Your task to perform on an android device: turn on priority inbox in the gmail app Image 0: 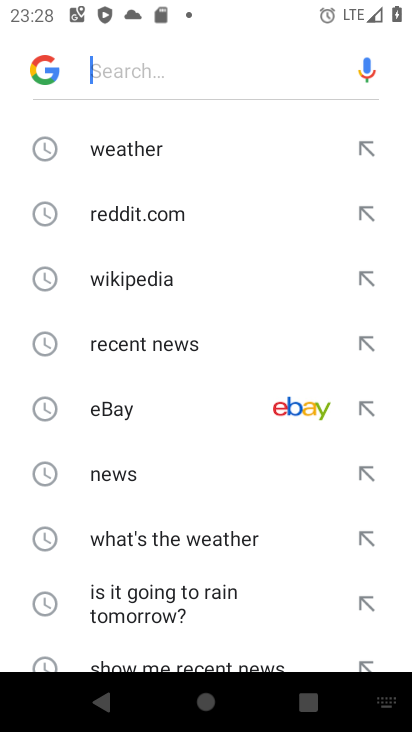
Step 0: press home button
Your task to perform on an android device: turn on priority inbox in the gmail app Image 1: 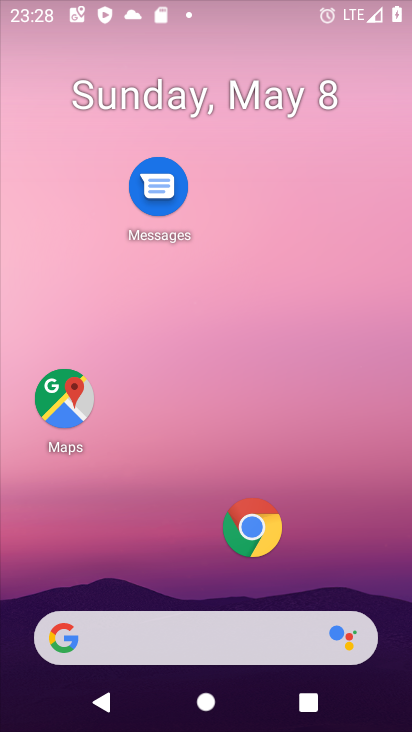
Step 1: drag from (201, 560) to (205, 47)
Your task to perform on an android device: turn on priority inbox in the gmail app Image 2: 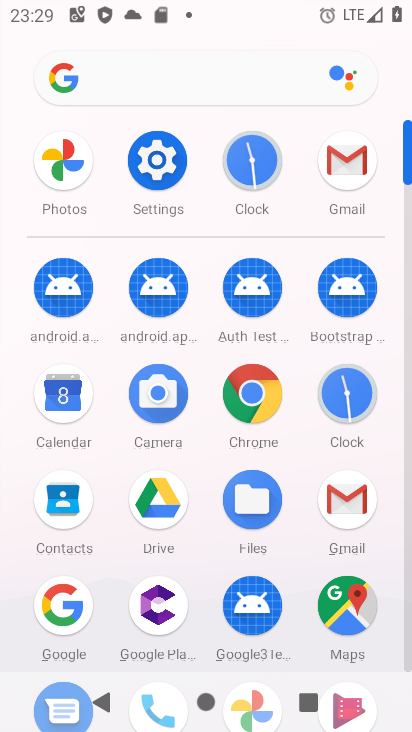
Step 2: click (355, 166)
Your task to perform on an android device: turn on priority inbox in the gmail app Image 3: 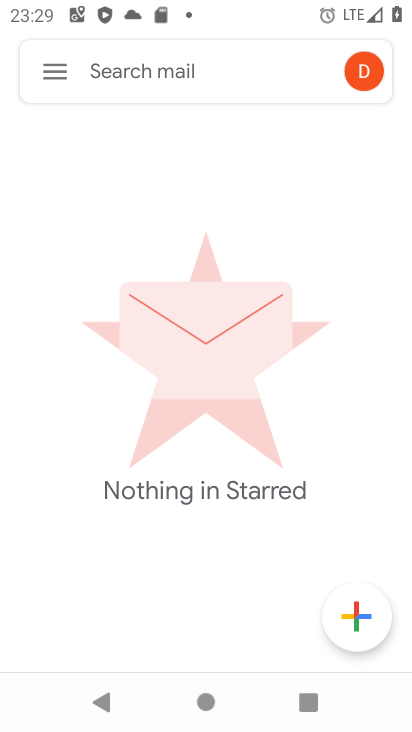
Step 3: click (49, 79)
Your task to perform on an android device: turn on priority inbox in the gmail app Image 4: 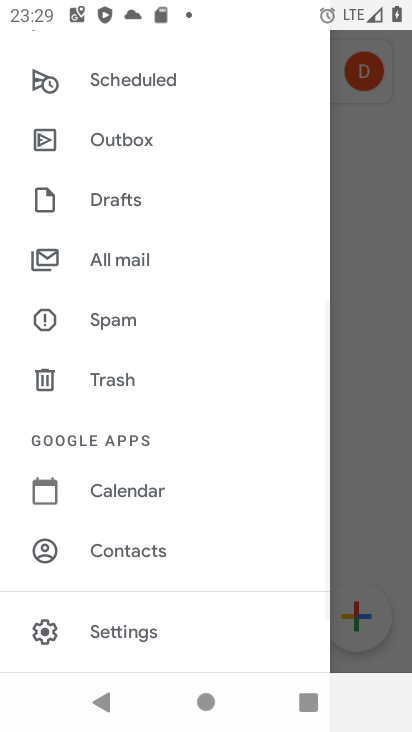
Step 4: click (110, 625)
Your task to perform on an android device: turn on priority inbox in the gmail app Image 5: 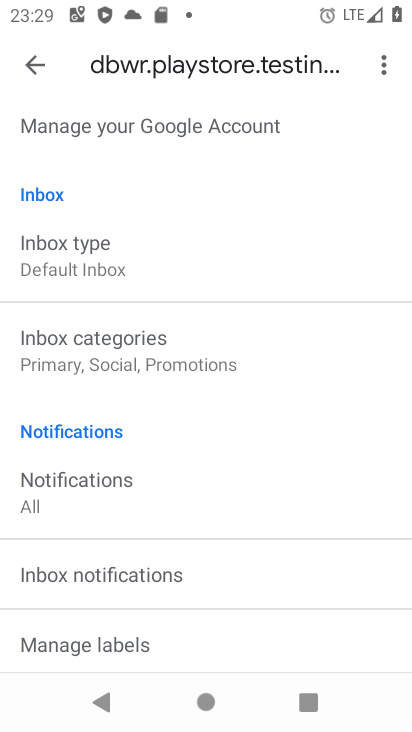
Step 5: click (99, 254)
Your task to perform on an android device: turn on priority inbox in the gmail app Image 6: 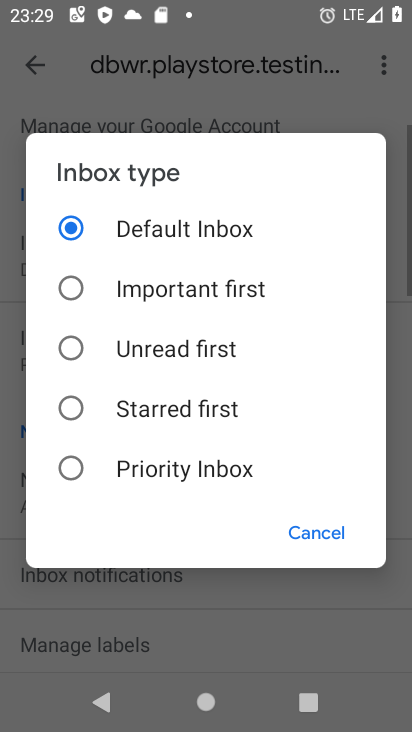
Step 6: click (74, 472)
Your task to perform on an android device: turn on priority inbox in the gmail app Image 7: 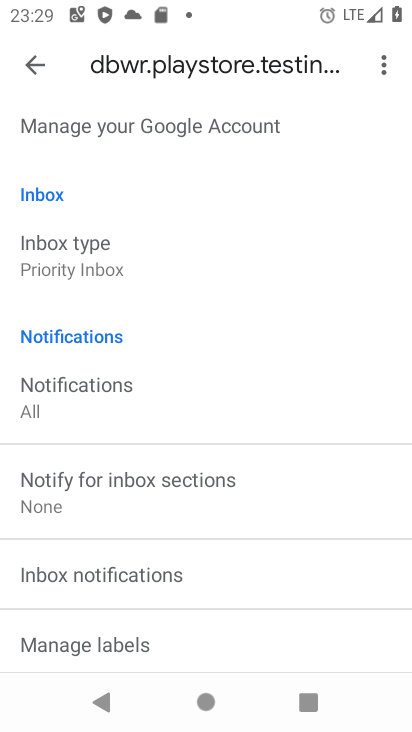
Step 7: task complete